Your task to perform on an android device: Open Google Chrome Image 0: 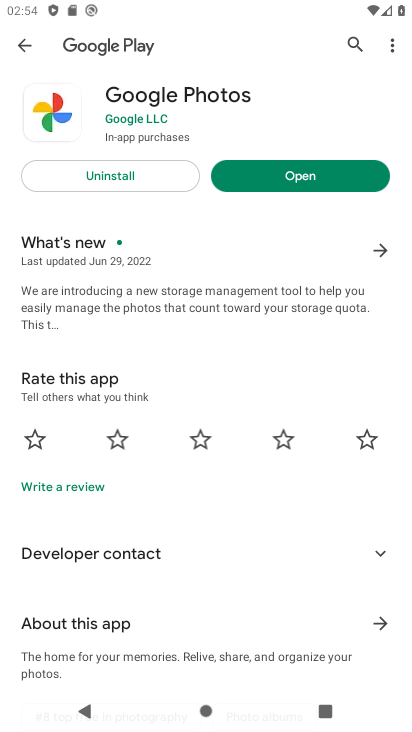
Step 0: press home button
Your task to perform on an android device: Open Google Chrome Image 1: 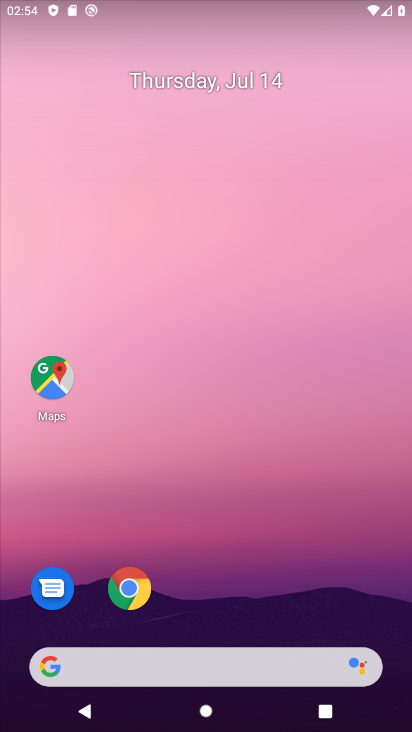
Step 1: click (138, 592)
Your task to perform on an android device: Open Google Chrome Image 2: 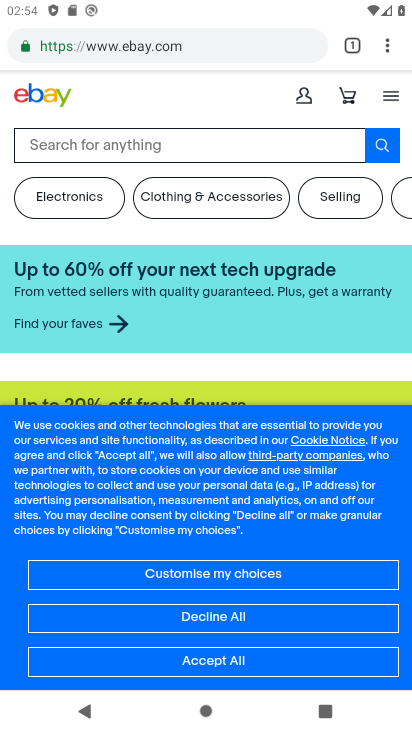
Step 2: task complete